Your task to perform on an android device: Search for sushi restaurants on Maps Image 0: 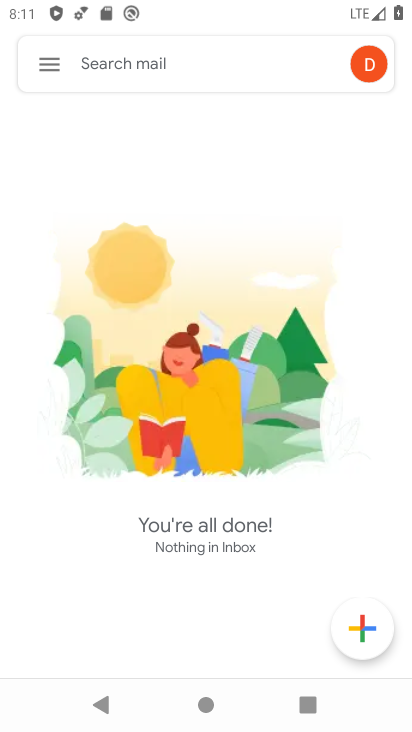
Step 0: press back button
Your task to perform on an android device: Search for sushi restaurants on Maps Image 1: 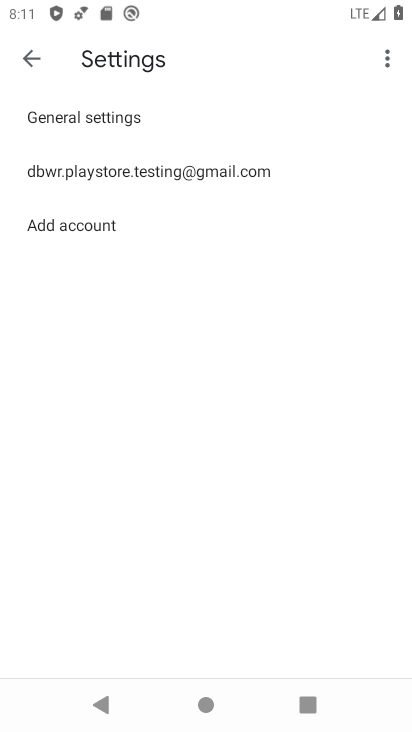
Step 1: press back button
Your task to perform on an android device: Search for sushi restaurants on Maps Image 2: 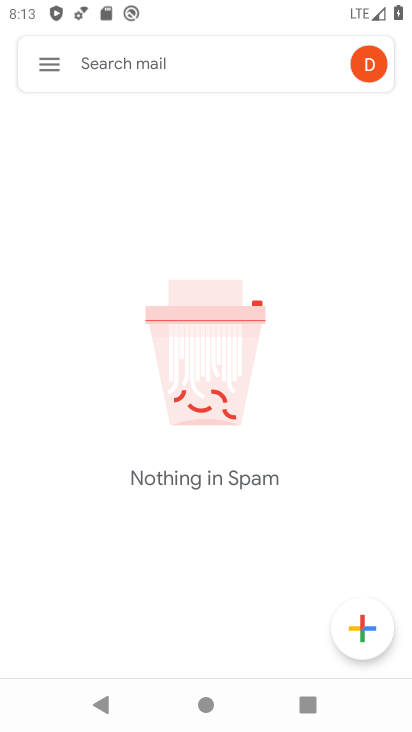
Step 2: press back button
Your task to perform on an android device: Search for sushi restaurants on Maps Image 3: 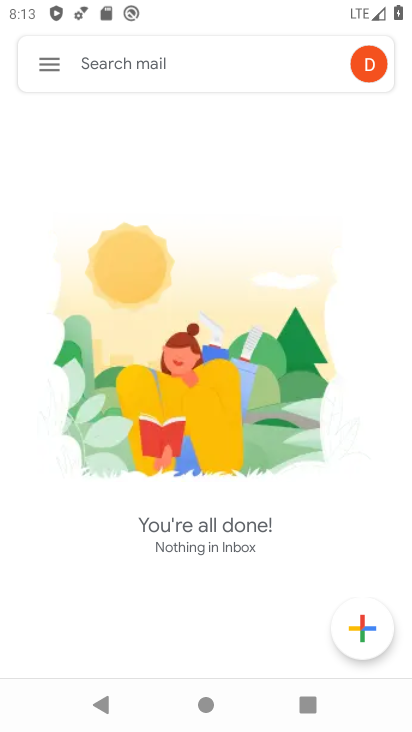
Step 3: press back button
Your task to perform on an android device: Search for sushi restaurants on Maps Image 4: 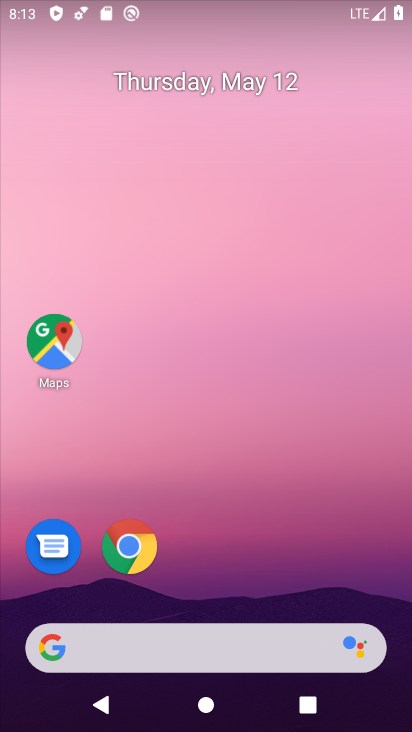
Step 4: click (42, 318)
Your task to perform on an android device: Search for sushi restaurants on Maps Image 5: 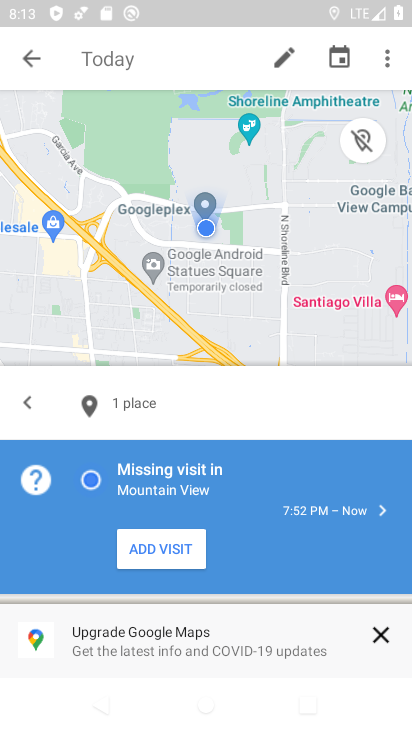
Step 5: task complete